Your task to perform on an android device: Toggle the flashlight Image 0: 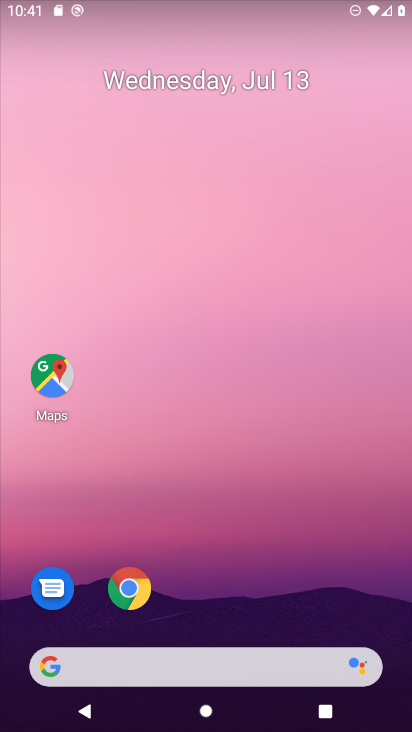
Step 0: drag from (243, 644) to (290, 18)
Your task to perform on an android device: Toggle the flashlight Image 1: 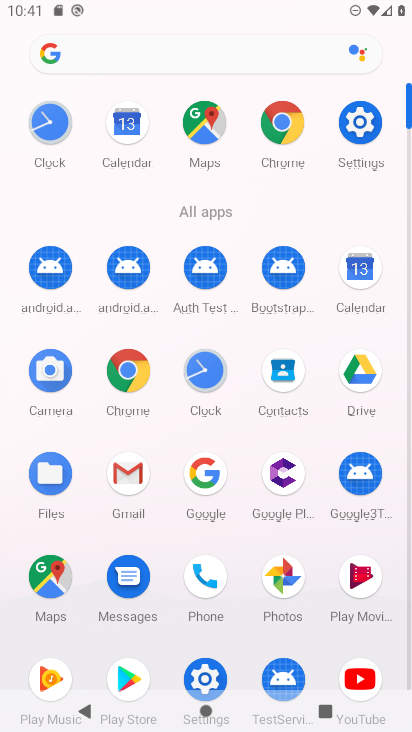
Step 1: click (204, 667)
Your task to perform on an android device: Toggle the flashlight Image 2: 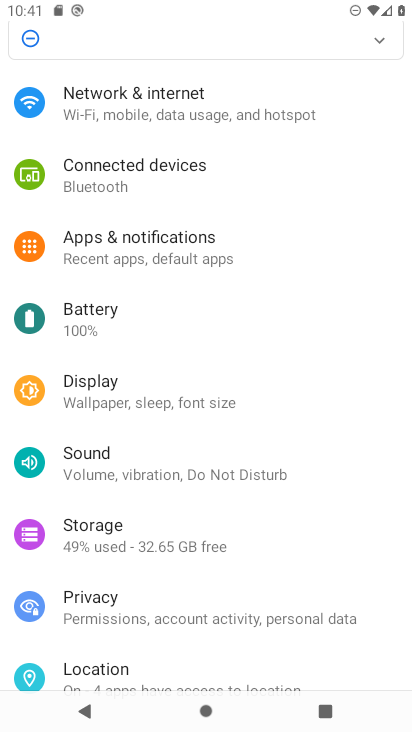
Step 2: drag from (175, 62) to (170, 469)
Your task to perform on an android device: Toggle the flashlight Image 3: 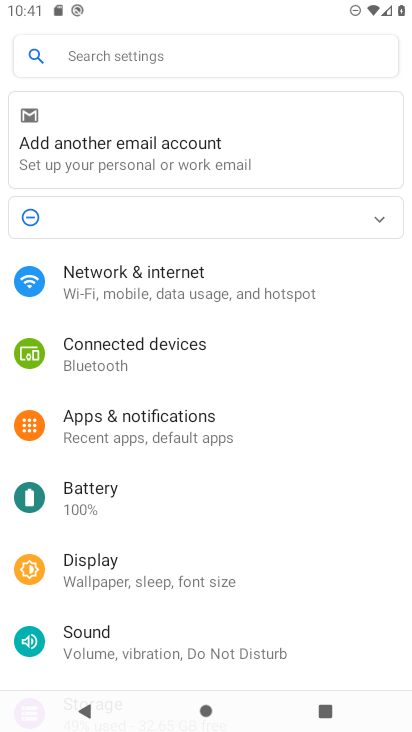
Step 3: click (236, 49)
Your task to perform on an android device: Toggle the flashlight Image 4: 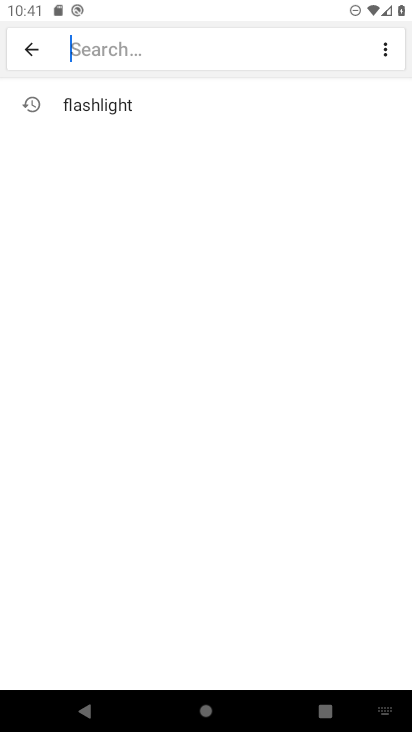
Step 4: type "flashlight"
Your task to perform on an android device: Toggle the flashlight Image 5: 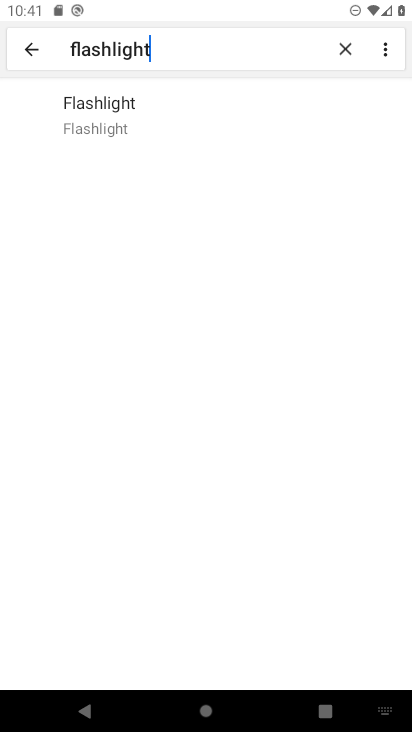
Step 5: click (126, 108)
Your task to perform on an android device: Toggle the flashlight Image 6: 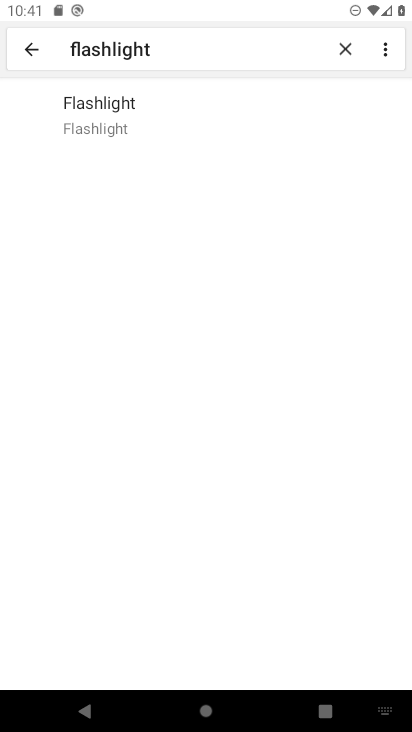
Step 6: click (127, 109)
Your task to perform on an android device: Toggle the flashlight Image 7: 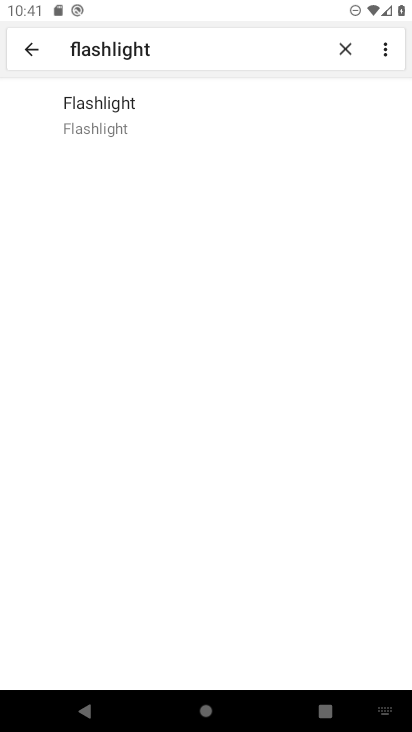
Step 7: task complete